Your task to perform on an android device: Open the map Image 0: 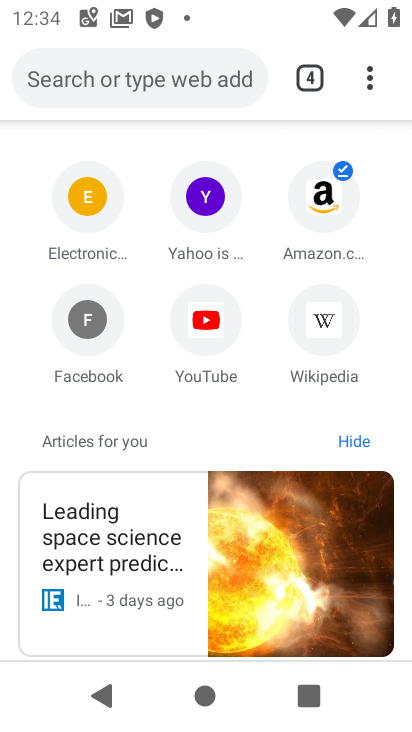
Step 0: press back button
Your task to perform on an android device: Open the map Image 1: 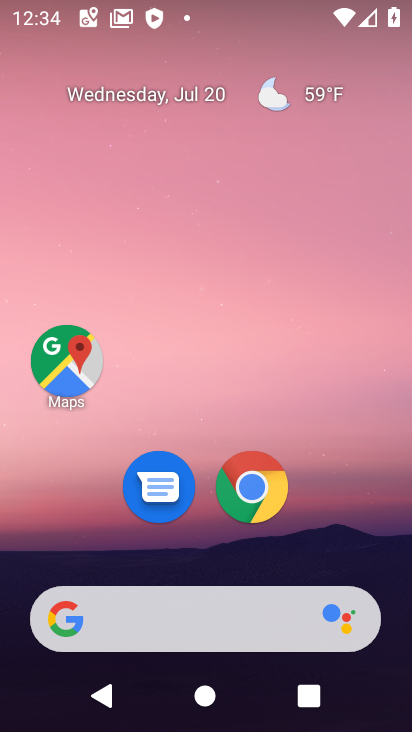
Step 1: click (84, 348)
Your task to perform on an android device: Open the map Image 2: 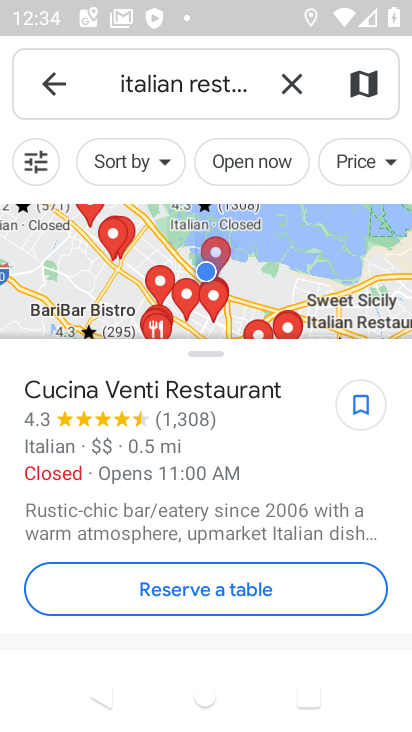
Step 2: task complete